Your task to perform on an android device: turn off improve location accuracy Image 0: 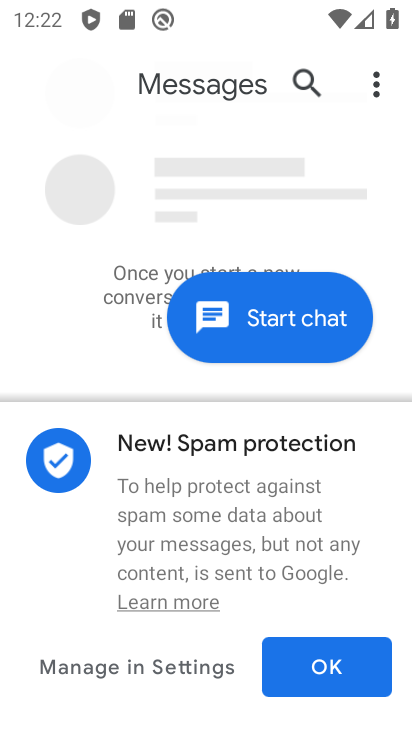
Step 0: press home button
Your task to perform on an android device: turn off improve location accuracy Image 1: 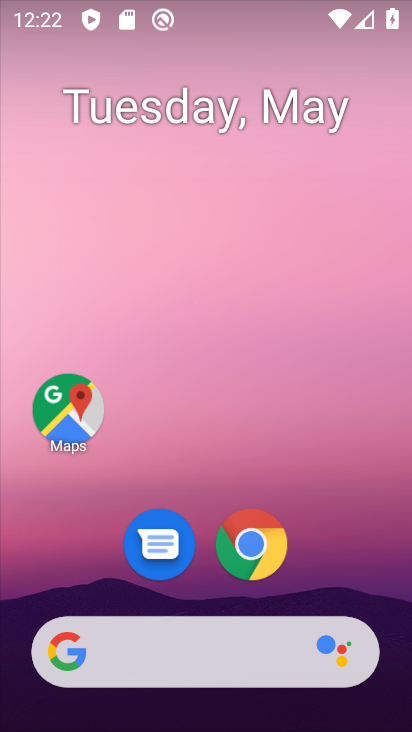
Step 1: drag from (18, 629) to (117, 157)
Your task to perform on an android device: turn off improve location accuracy Image 2: 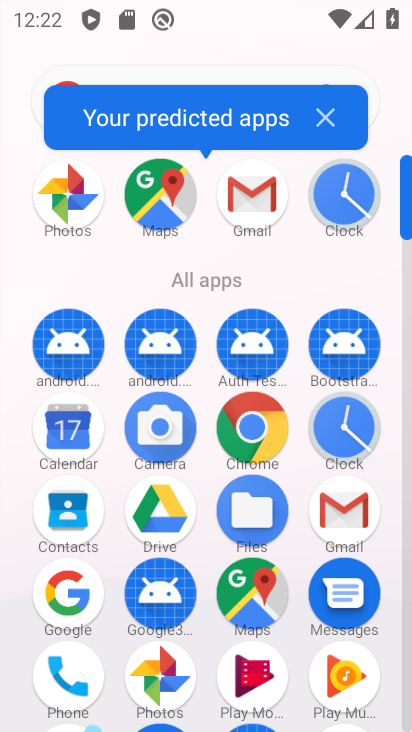
Step 2: drag from (129, 580) to (213, 271)
Your task to perform on an android device: turn off improve location accuracy Image 3: 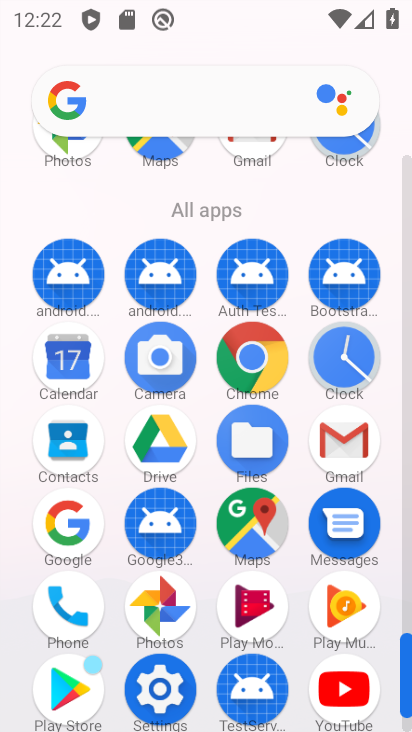
Step 3: click (169, 671)
Your task to perform on an android device: turn off improve location accuracy Image 4: 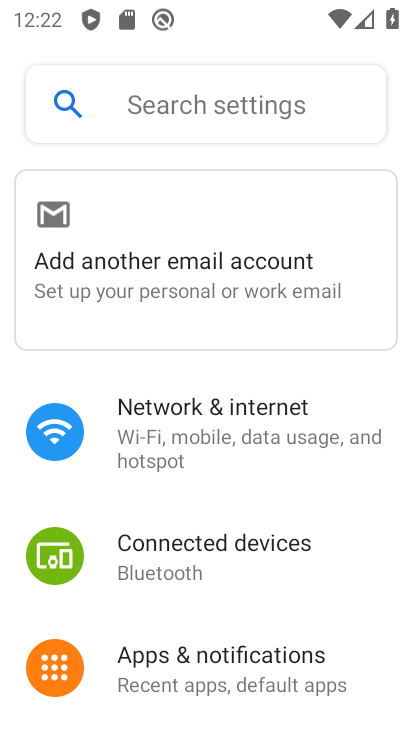
Step 4: drag from (227, 556) to (327, 127)
Your task to perform on an android device: turn off improve location accuracy Image 5: 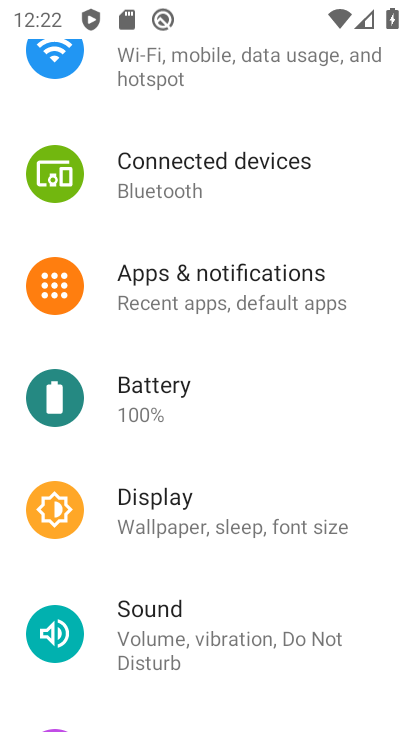
Step 5: drag from (204, 549) to (272, 194)
Your task to perform on an android device: turn off improve location accuracy Image 6: 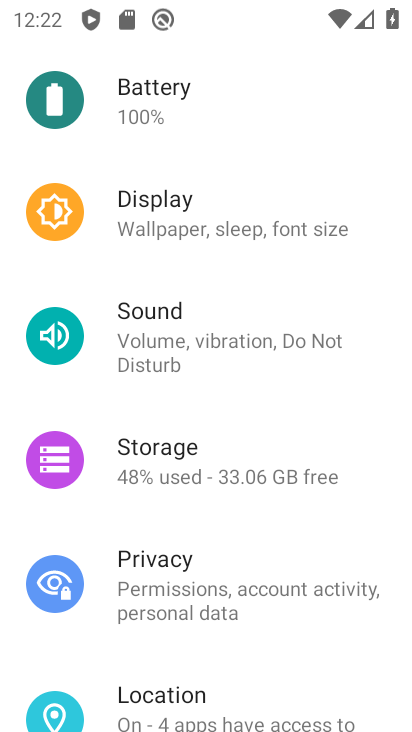
Step 6: drag from (199, 572) to (247, 295)
Your task to perform on an android device: turn off improve location accuracy Image 7: 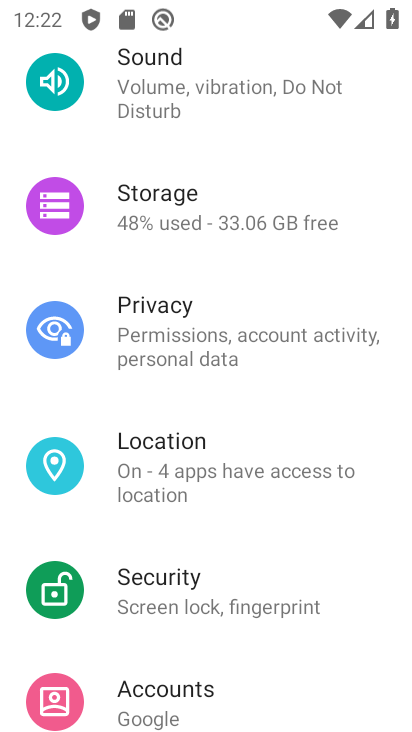
Step 7: click (178, 472)
Your task to perform on an android device: turn off improve location accuracy Image 8: 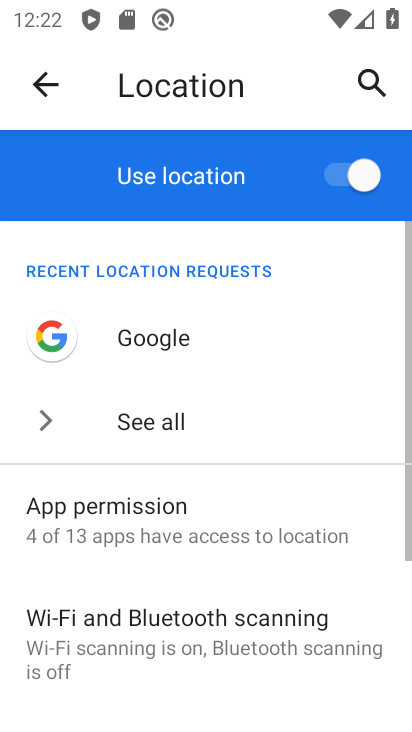
Step 8: drag from (218, 534) to (315, 207)
Your task to perform on an android device: turn off improve location accuracy Image 9: 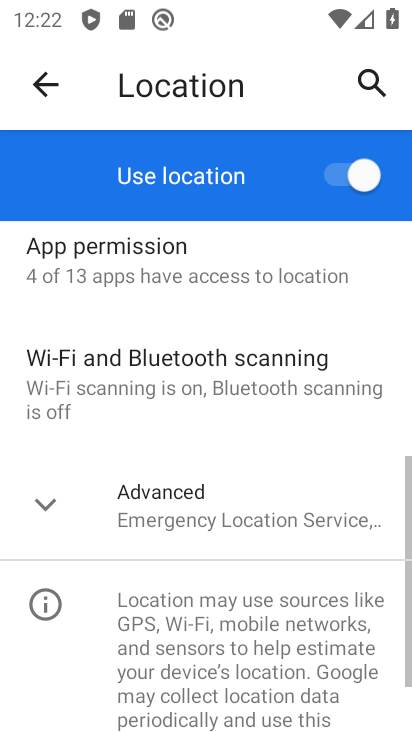
Step 9: click (187, 547)
Your task to perform on an android device: turn off improve location accuracy Image 10: 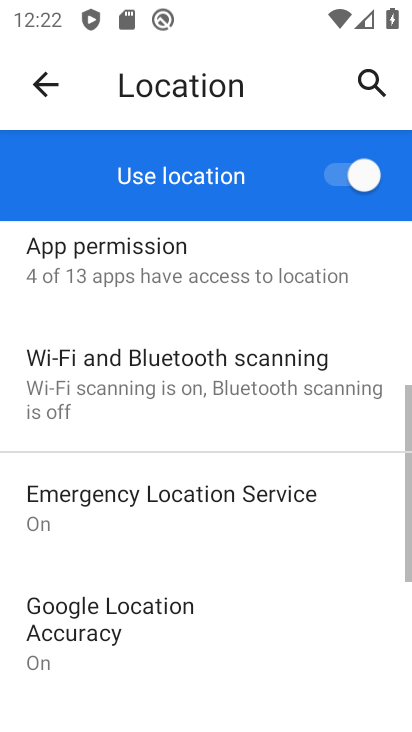
Step 10: drag from (195, 528) to (289, 101)
Your task to perform on an android device: turn off improve location accuracy Image 11: 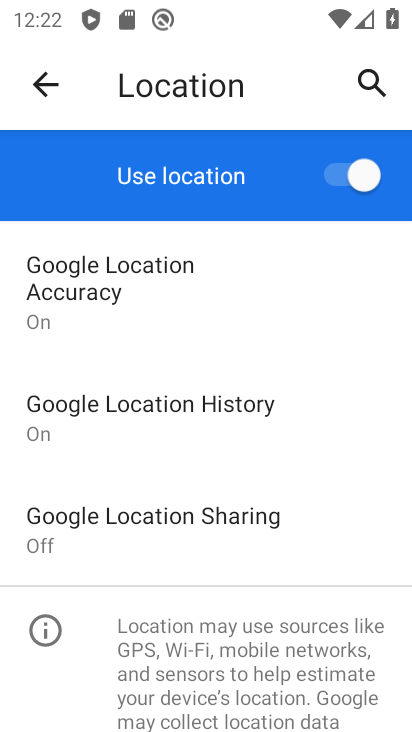
Step 11: drag from (202, 343) to (208, 622)
Your task to perform on an android device: turn off improve location accuracy Image 12: 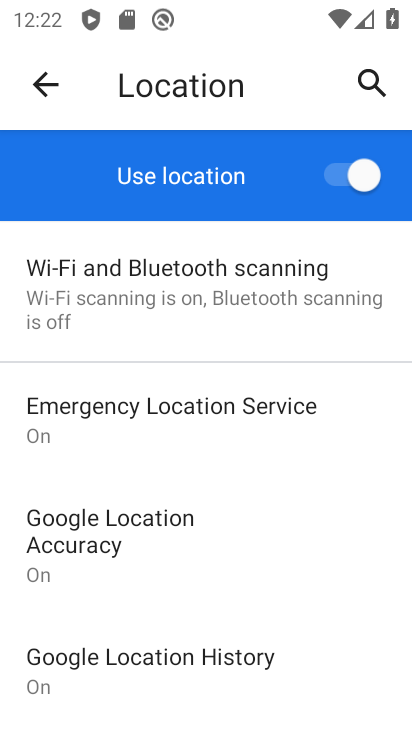
Step 12: click (187, 559)
Your task to perform on an android device: turn off improve location accuracy Image 13: 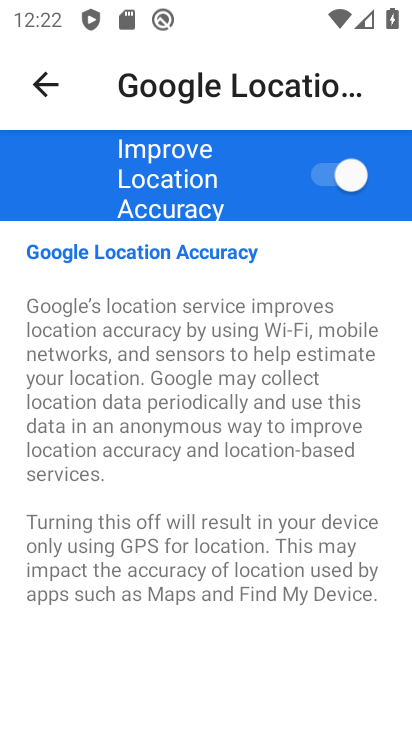
Step 13: click (321, 178)
Your task to perform on an android device: turn off improve location accuracy Image 14: 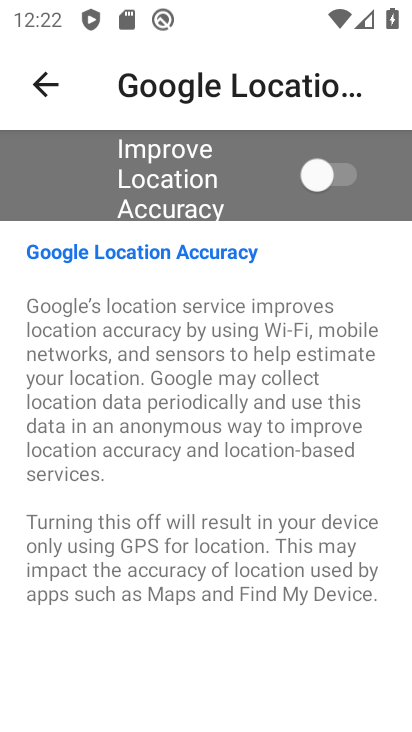
Step 14: task complete